Your task to perform on an android device: Go to sound settings Image 0: 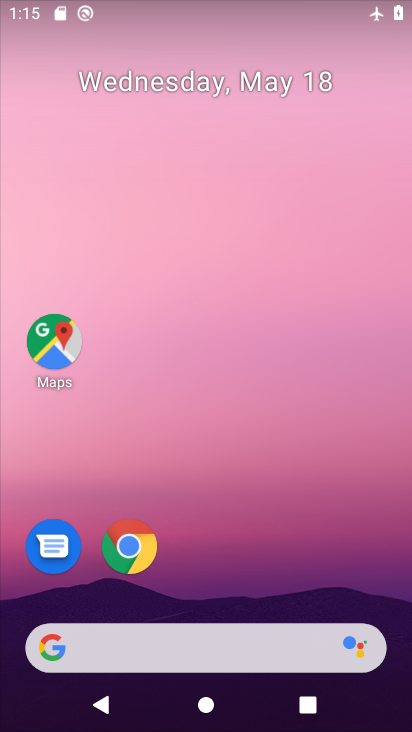
Step 0: drag from (223, 596) to (280, 196)
Your task to perform on an android device: Go to sound settings Image 1: 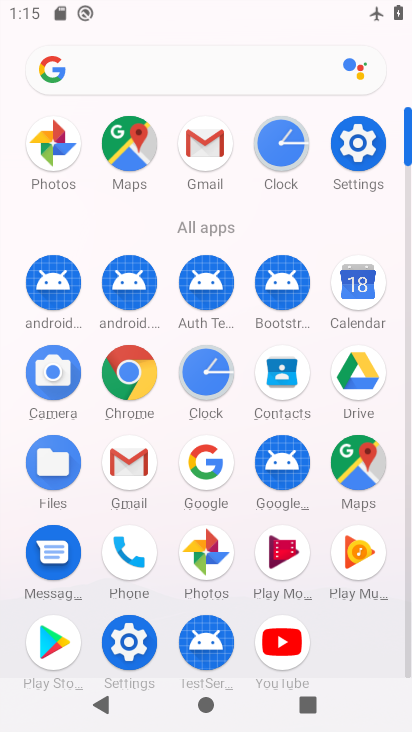
Step 1: click (355, 141)
Your task to perform on an android device: Go to sound settings Image 2: 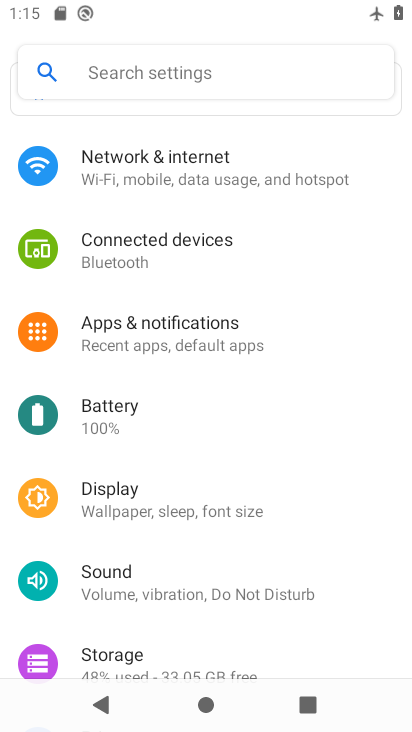
Step 2: click (153, 573)
Your task to perform on an android device: Go to sound settings Image 3: 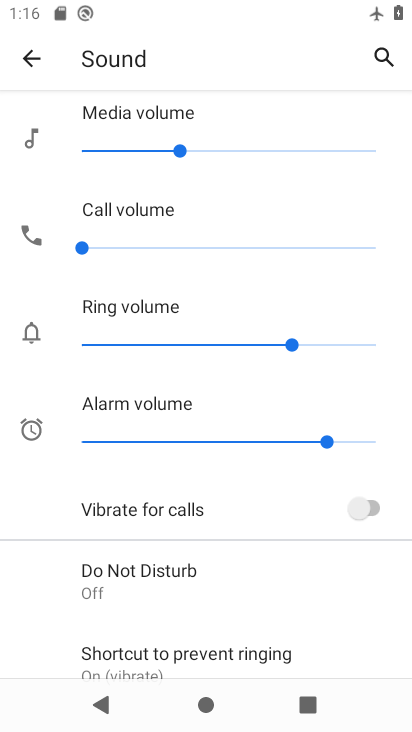
Step 3: task complete